Your task to perform on an android device: change the upload size in google photos Image 0: 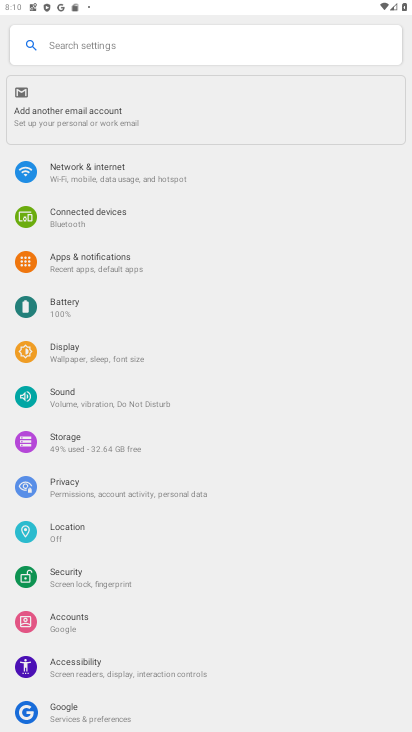
Step 0: press home button
Your task to perform on an android device: change the upload size in google photos Image 1: 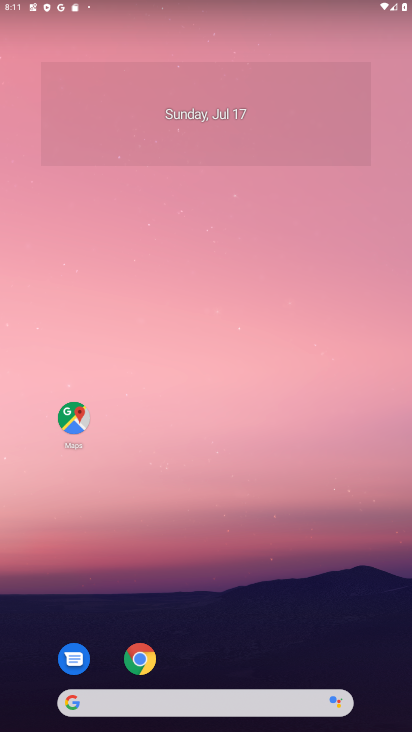
Step 1: drag from (300, 585) to (236, 294)
Your task to perform on an android device: change the upload size in google photos Image 2: 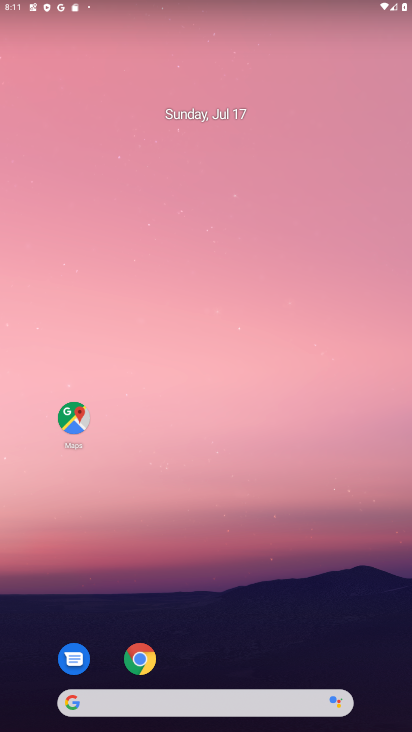
Step 2: drag from (244, 626) to (226, 222)
Your task to perform on an android device: change the upload size in google photos Image 3: 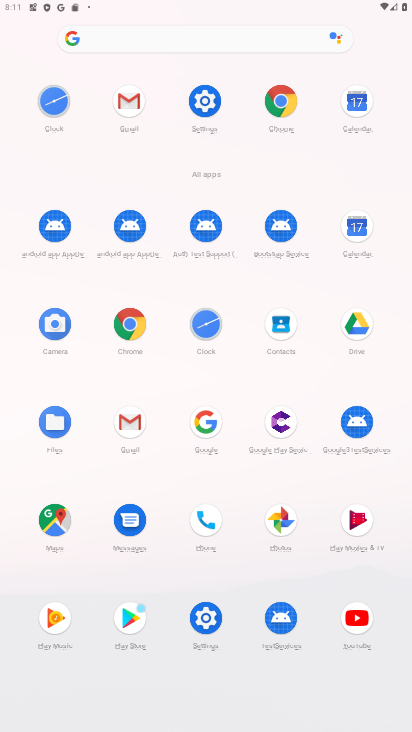
Step 3: click (272, 519)
Your task to perform on an android device: change the upload size in google photos Image 4: 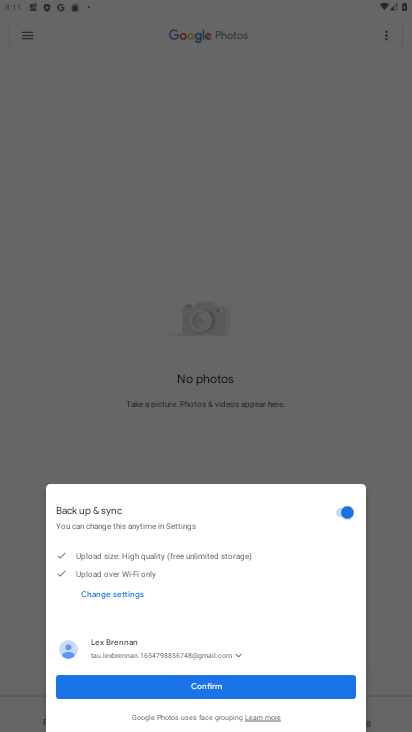
Step 4: click (272, 266)
Your task to perform on an android device: change the upload size in google photos Image 5: 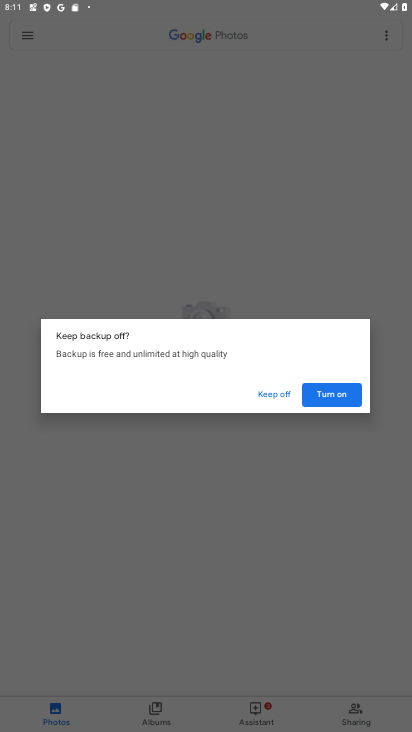
Step 5: click (270, 397)
Your task to perform on an android device: change the upload size in google photos Image 6: 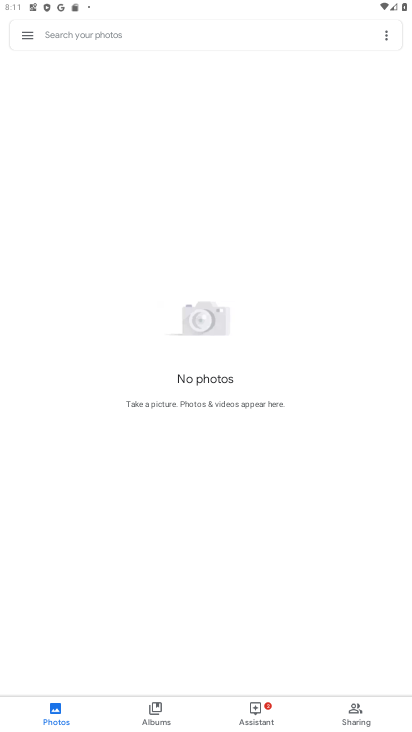
Step 6: click (388, 35)
Your task to perform on an android device: change the upload size in google photos Image 7: 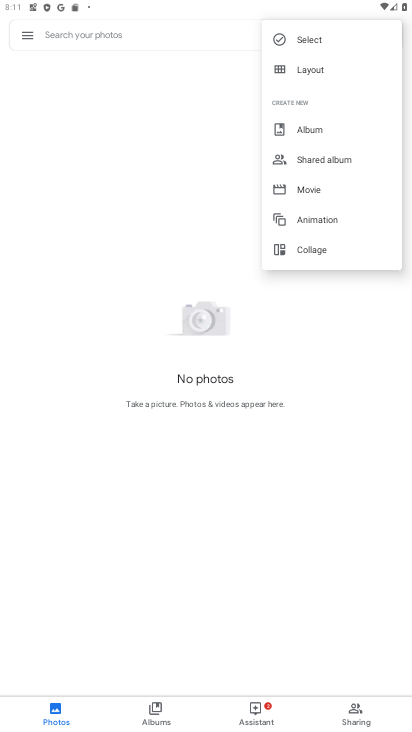
Step 7: click (121, 360)
Your task to perform on an android device: change the upload size in google photos Image 8: 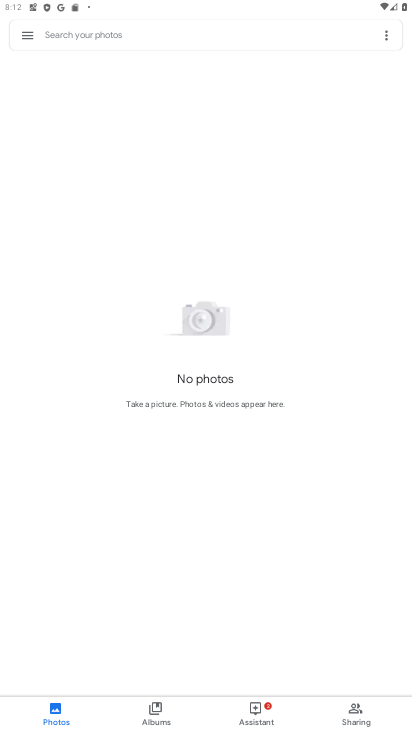
Step 8: task complete